Your task to perform on an android device: turn off airplane mode Image 0: 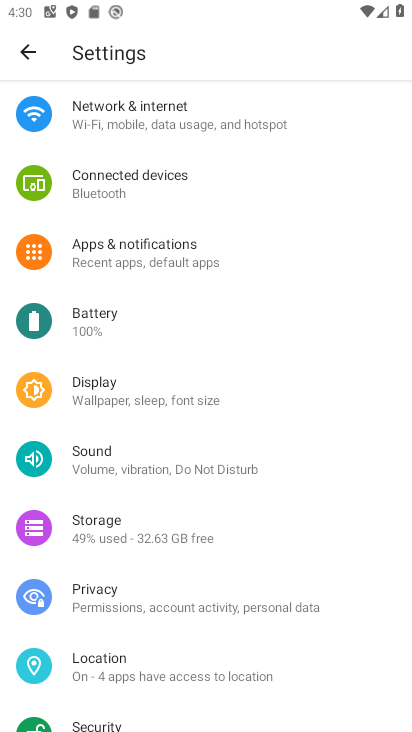
Step 0: click (174, 127)
Your task to perform on an android device: turn off airplane mode Image 1: 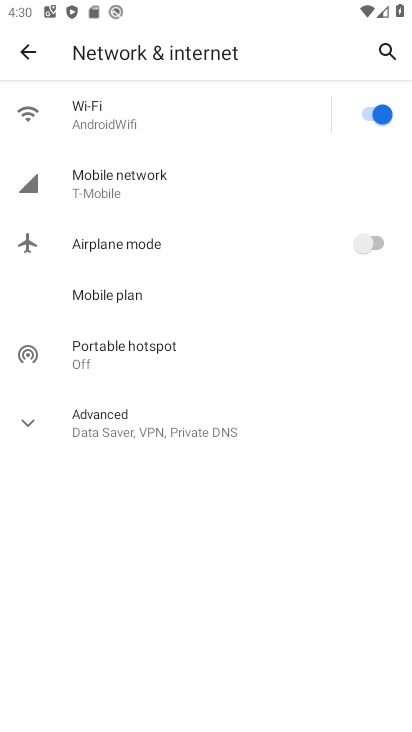
Step 1: task complete